Your task to perform on an android device: toggle translation in the chrome app Image 0: 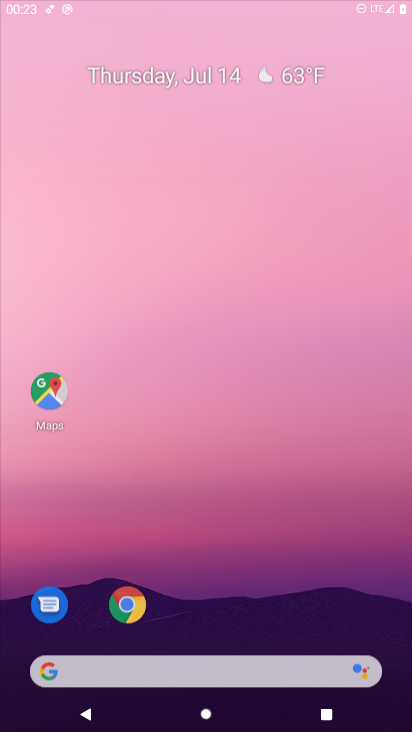
Step 0: press home button
Your task to perform on an android device: toggle translation in the chrome app Image 1: 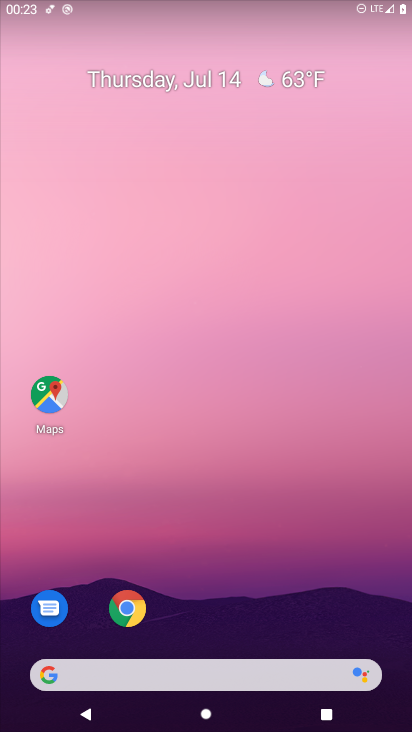
Step 1: drag from (230, 632) to (310, 12)
Your task to perform on an android device: toggle translation in the chrome app Image 2: 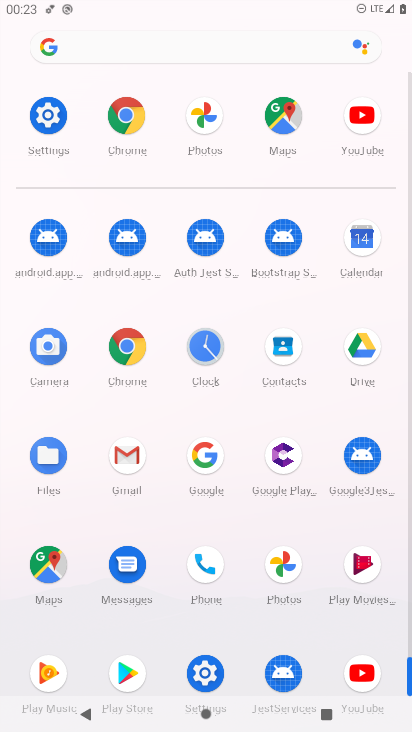
Step 2: click (124, 115)
Your task to perform on an android device: toggle translation in the chrome app Image 3: 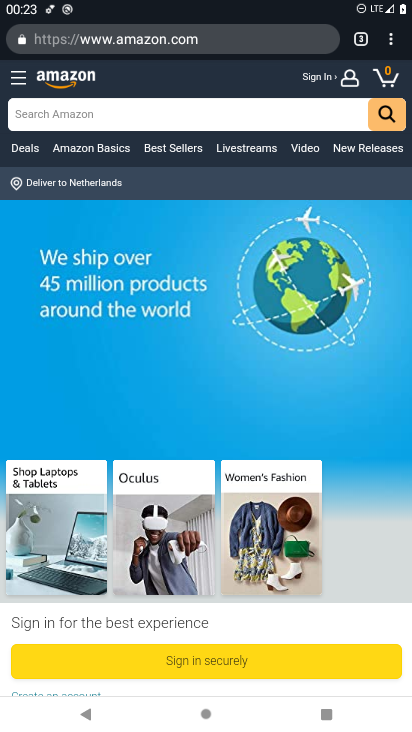
Step 3: drag from (388, 35) to (252, 477)
Your task to perform on an android device: toggle translation in the chrome app Image 4: 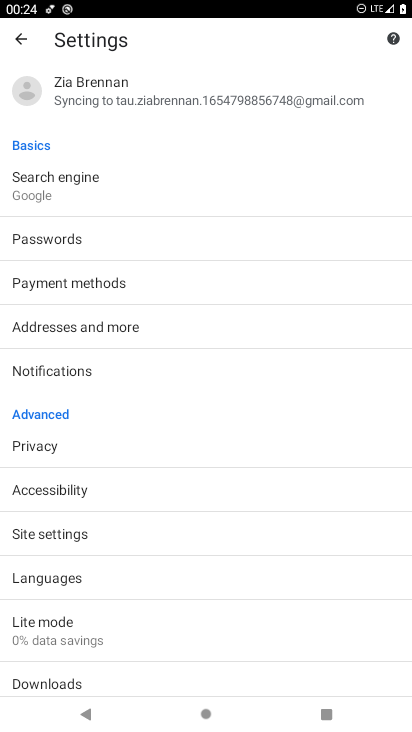
Step 4: click (43, 581)
Your task to perform on an android device: toggle translation in the chrome app Image 5: 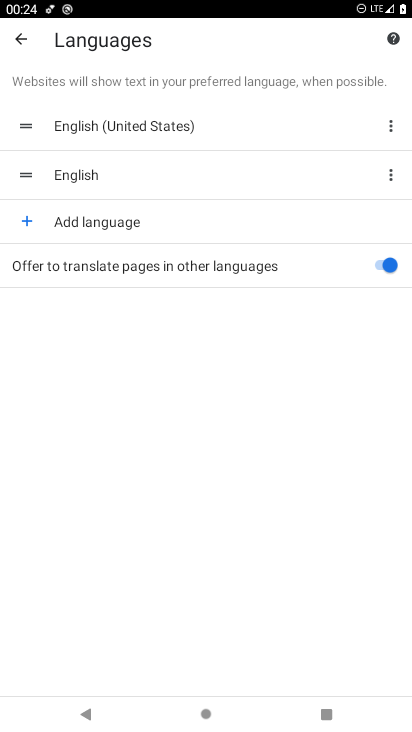
Step 5: click (383, 259)
Your task to perform on an android device: toggle translation in the chrome app Image 6: 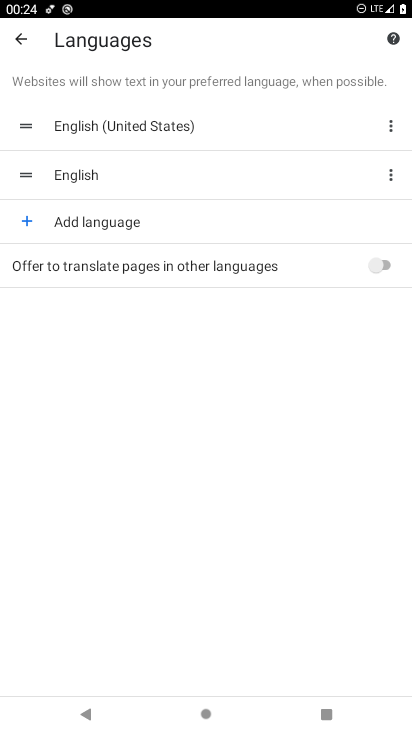
Step 6: task complete